Your task to perform on an android device: Open notification settings Image 0: 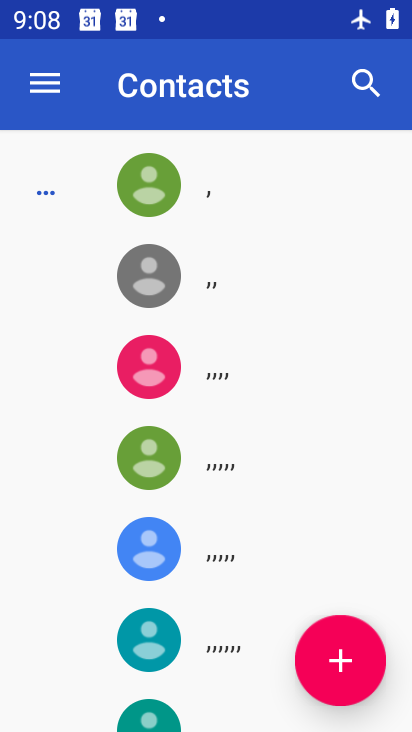
Step 0: press home button
Your task to perform on an android device: Open notification settings Image 1: 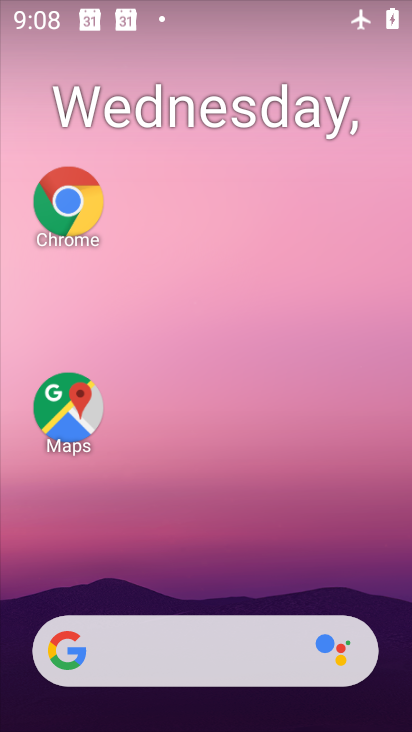
Step 1: drag from (217, 576) to (94, 70)
Your task to perform on an android device: Open notification settings Image 2: 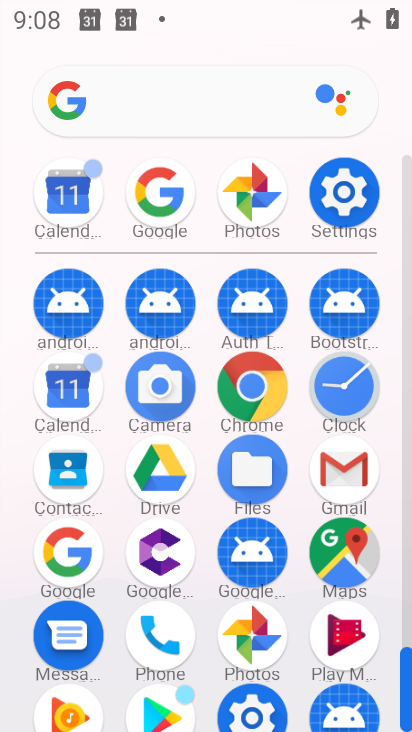
Step 2: click (350, 184)
Your task to perform on an android device: Open notification settings Image 3: 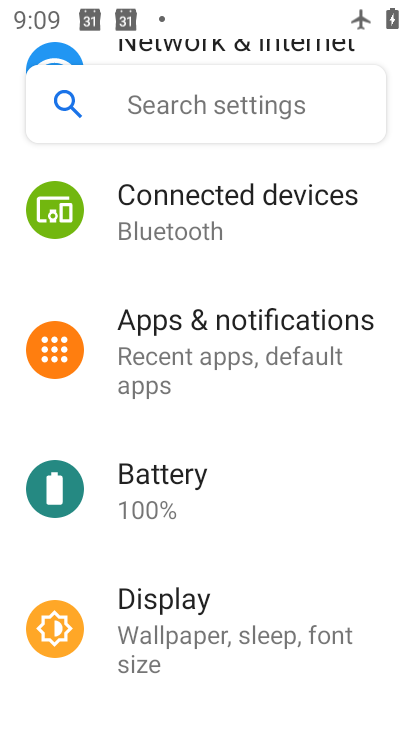
Step 3: click (242, 367)
Your task to perform on an android device: Open notification settings Image 4: 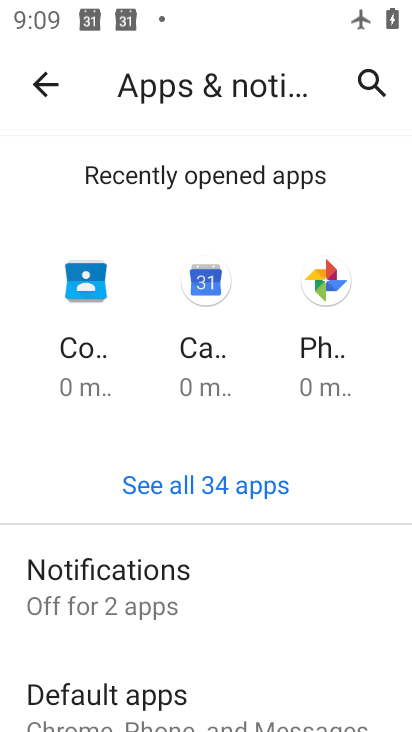
Step 4: click (110, 559)
Your task to perform on an android device: Open notification settings Image 5: 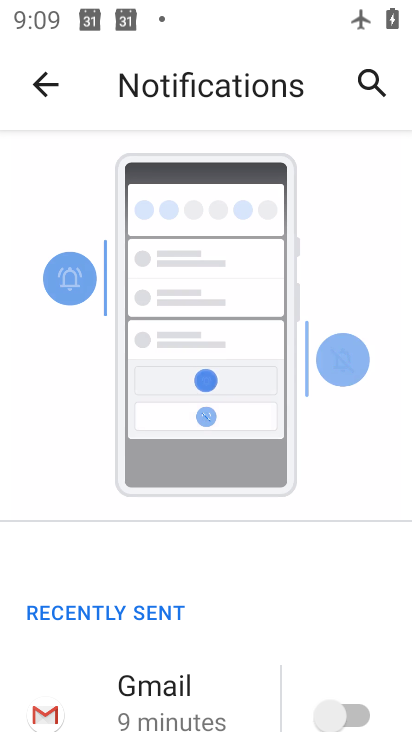
Step 5: drag from (237, 595) to (146, 19)
Your task to perform on an android device: Open notification settings Image 6: 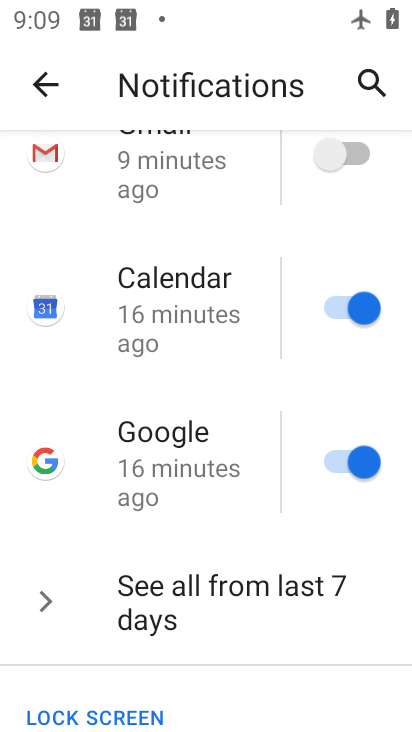
Step 6: drag from (205, 569) to (177, 17)
Your task to perform on an android device: Open notification settings Image 7: 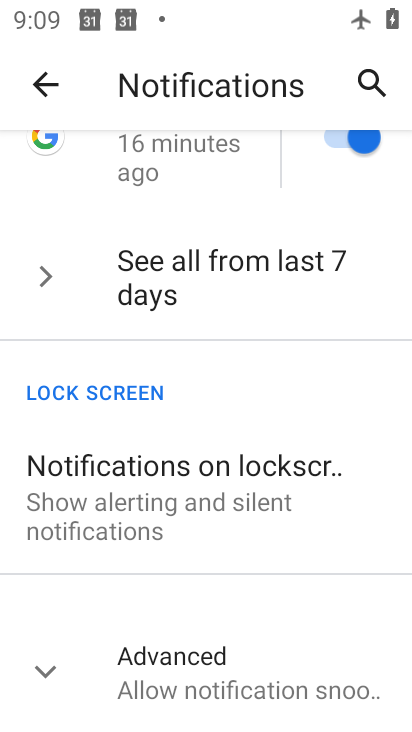
Step 7: click (154, 637)
Your task to perform on an android device: Open notification settings Image 8: 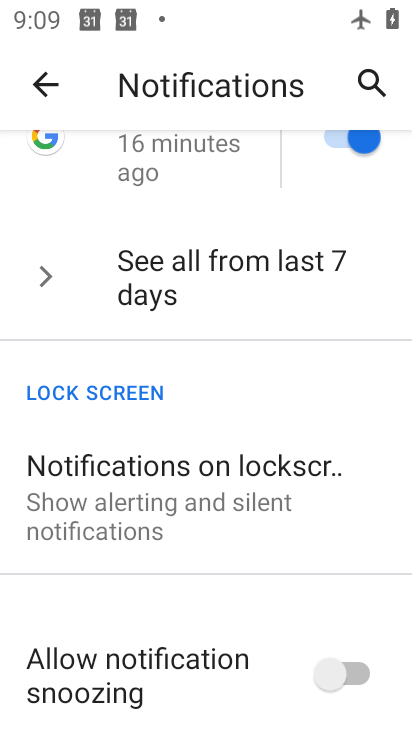
Step 8: click (213, 250)
Your task to perform on an android device: Open notification settings Image 9: 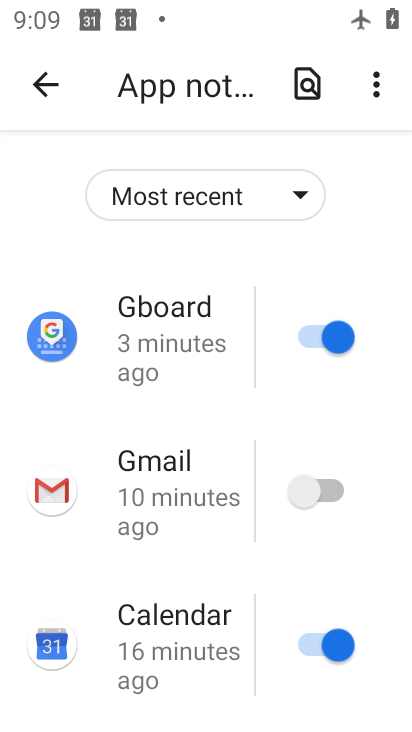
Step 9: click (202, 194)
Your task to perform on an android device: Open notification settings Image 10: 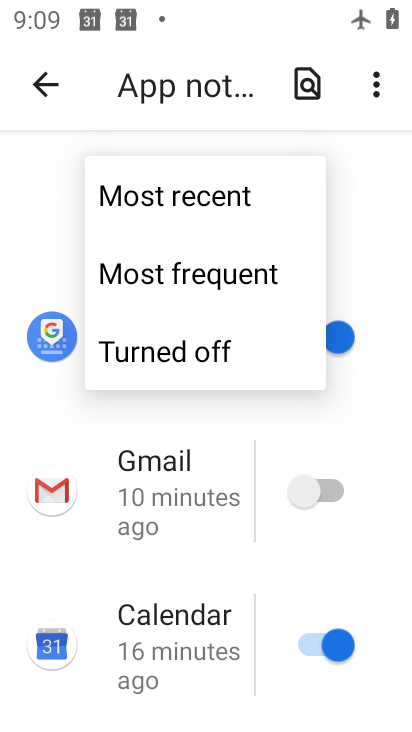
Step 10: click (252, 348)
Your task to perform on an android device: Open notification settings Image 11: 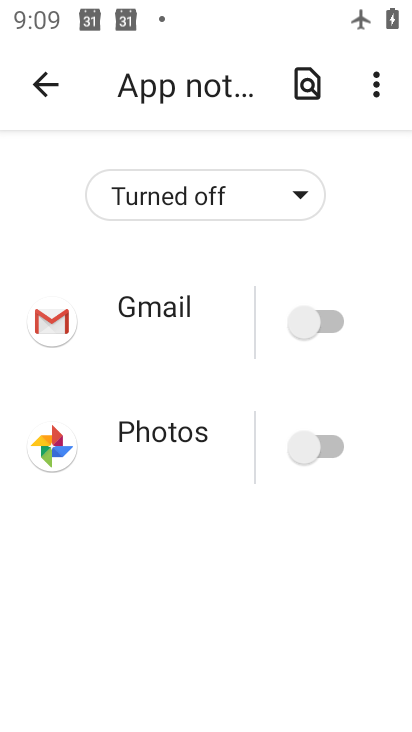
Step 11: task complete